Your task to perform on an android device: move an email to a new category in the gmail app Image 0: 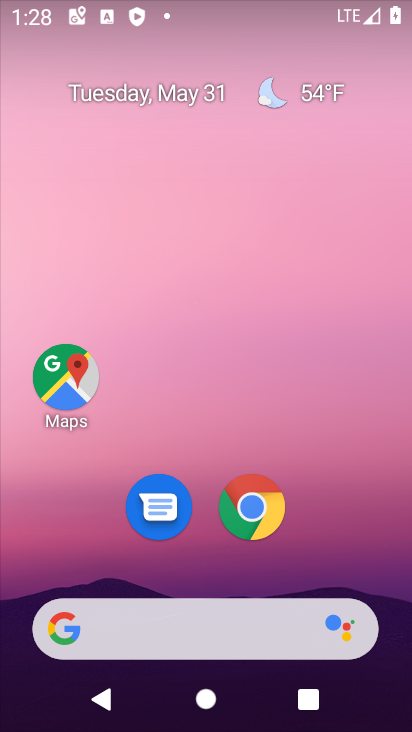
Step 0: drag from (390, 632) to (336, 37)
Your task to perform on an android device: move an email to a new category in the gmail app Image 1: 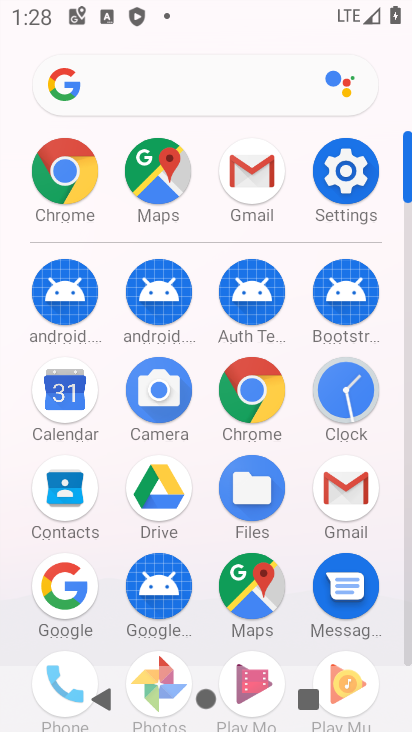
Step 1: click (248, 213)
Your task to perform on an android device: move an email to a new category in the gmail app Image 2: 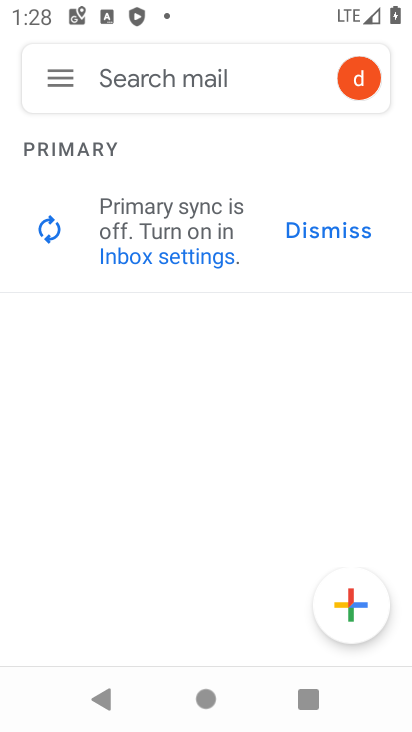
Step 2: task complete